Your task to perform on an android device: stop showing notifications on the lock screen Image 0: 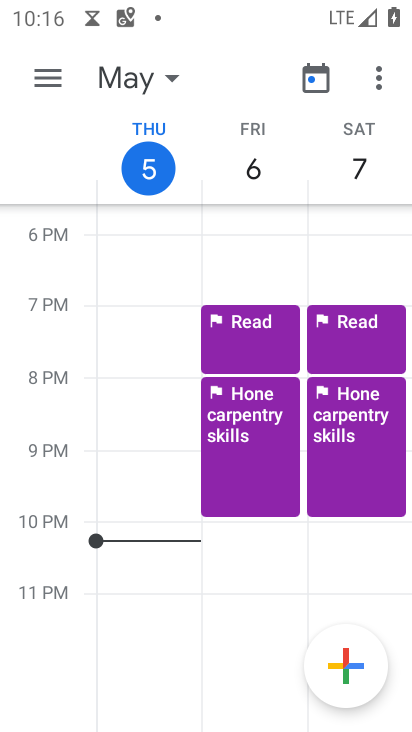
Step 0: press home button
Your task to perform on an android device: stop showing notifications on the lock screen Image 1: 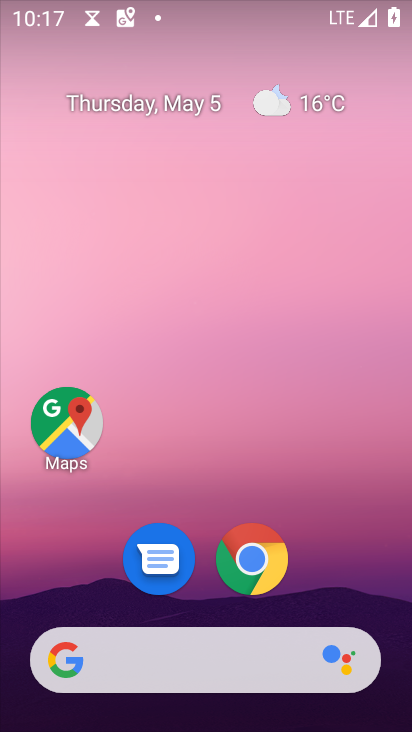
Step 1: drag from (271, 620) to (328, 155)
Your task to perform on an android device: stop showing notifications on the lock screen Image 2: 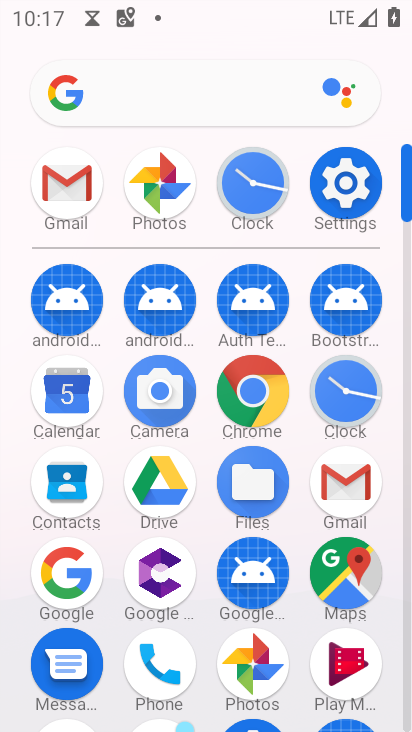
Step 2: click (356, 197)
Your task to perform on an android device: stop showing notifications on the lock screen Image 3: 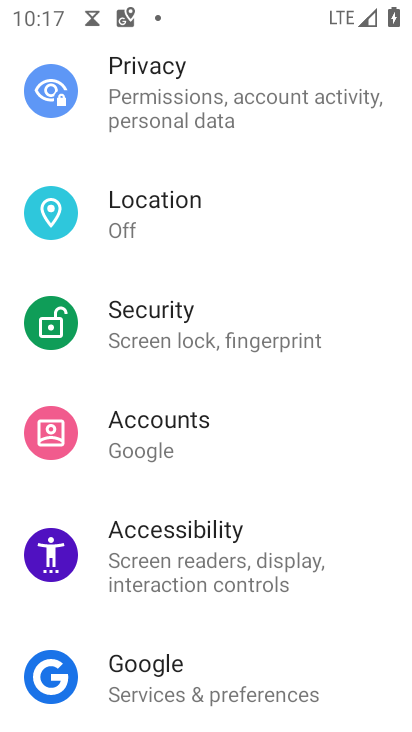
Step 3: drag from (204, 576) to (215, 283)
Your task to perform on an android device: stop showing notifications on the lock screen Image 4: 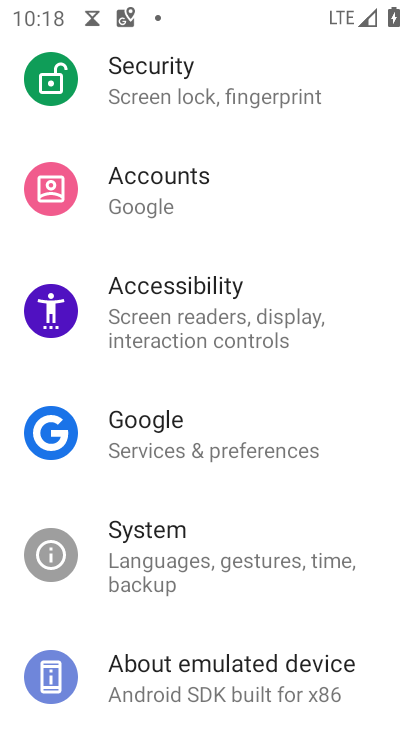
Step 4: drag from (257, 333) to (149, 653)
Your task to perform on an android device: stop showing notifications on the lock screen Image 5: 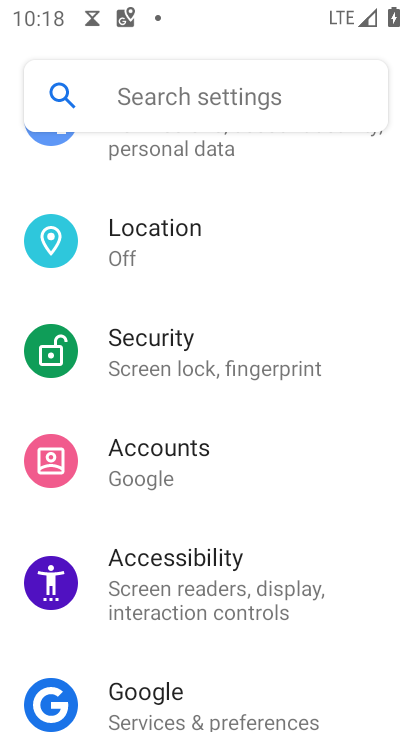
Step 5: drag from (252, 315) to (287, 515)
Your task to perform on an android device: stop showing notifications on the lock screen Image 6: 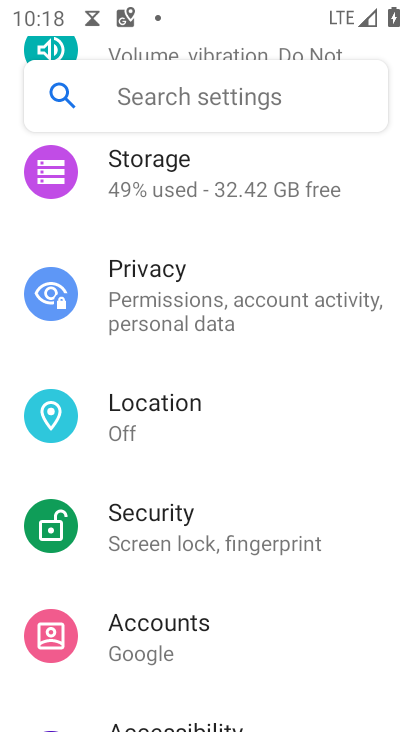
Step 6: drag from (229, 249) to (239, 551)
Your task to perform on an android device: stop showing notifications on the lock screen Image 7: 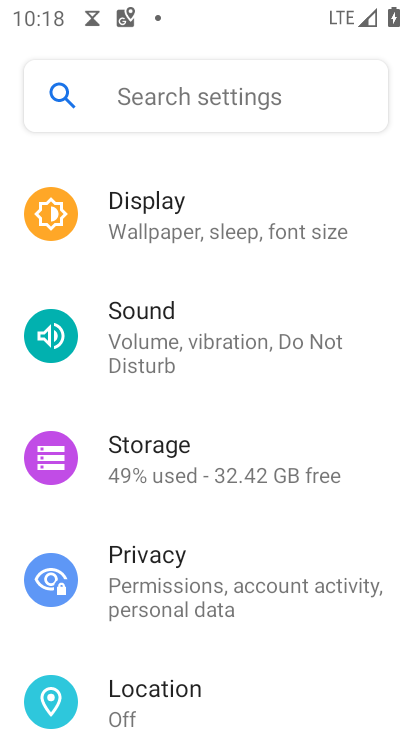
Step 7: drag from (254, 227) to (269, 563)
Your task to perform on an android device: stop showing notifications on the lock screen Image 8: 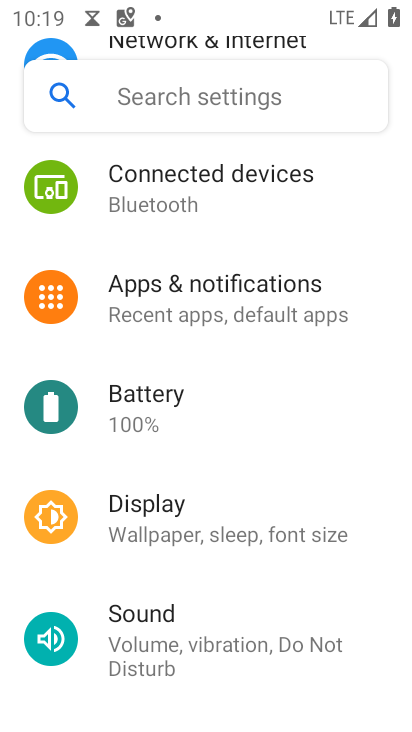
Step 8: click (252, 321)
Your task to perform on an android device: stop showing notifications on the lock screen Image 9: 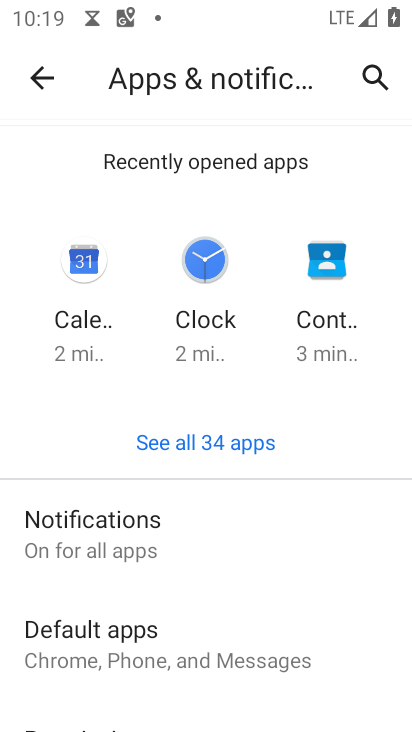
Step 9: click (172, 541)
Your task to perform on an android device: stop showing notifications on the lock screen Image 10: 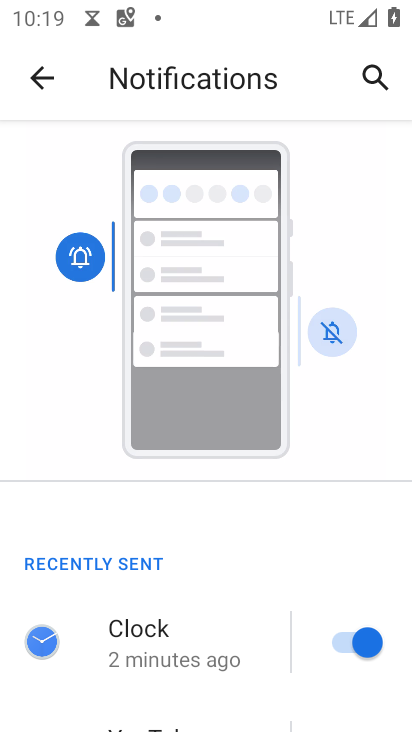
Step 10: drag from (207, 589) to (271, 167)
Your task to perform on an android device: stop showing notifications on the lock screen Image 11: 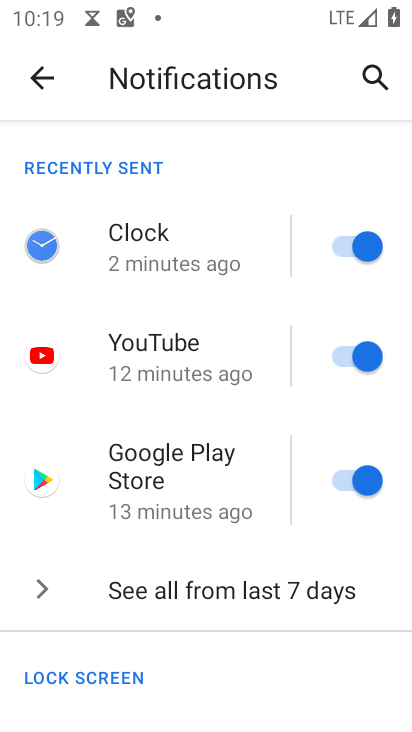
Step 11: drag from (225, 626) to (308, 220)
Your task to perform on an android device: stop showing notifications on the lock screen Image 12: 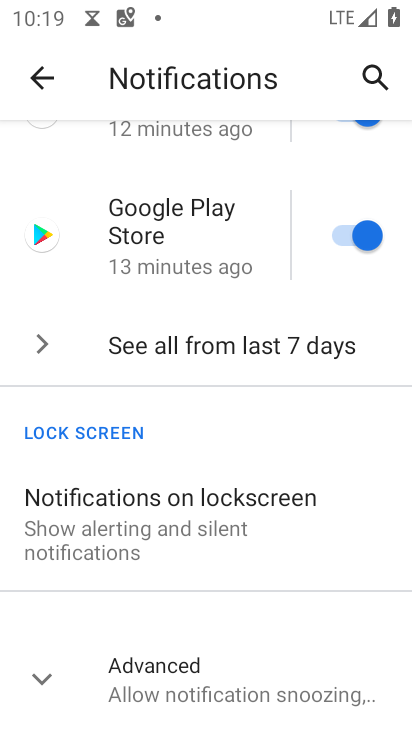
Step 12: click (160, 525)
Your task to perform on an android device: stop showing notifications on the lock screen Image 13: 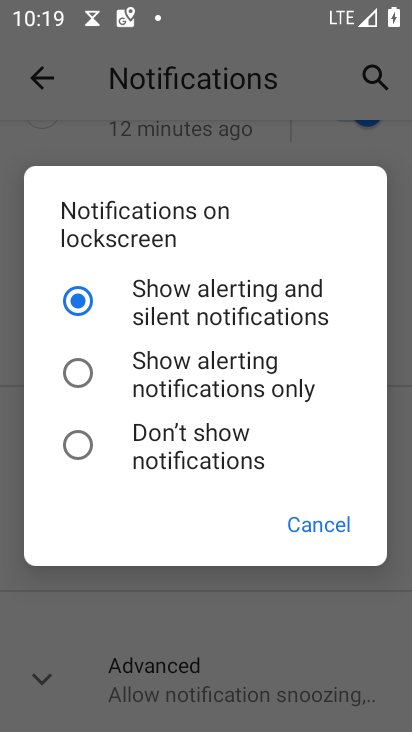
Step 13: click (167, 453)
Your task to perform on an android device: stop showing notifications on the lock screen Image 14: 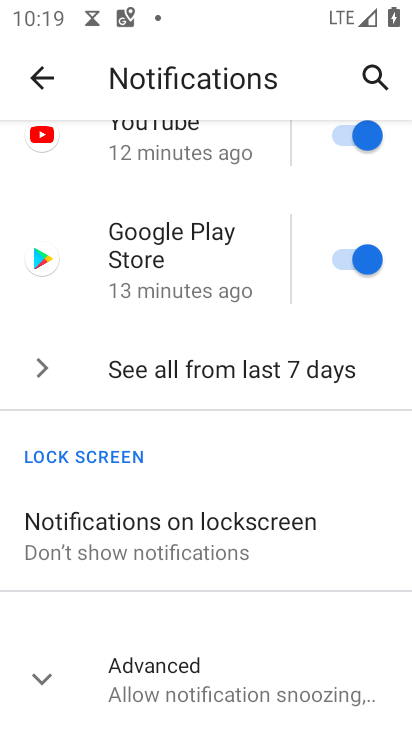
Step 14: task complete